Your task to perform on an android device: uninstall "Flipkart Online Shopping App" Image 0: 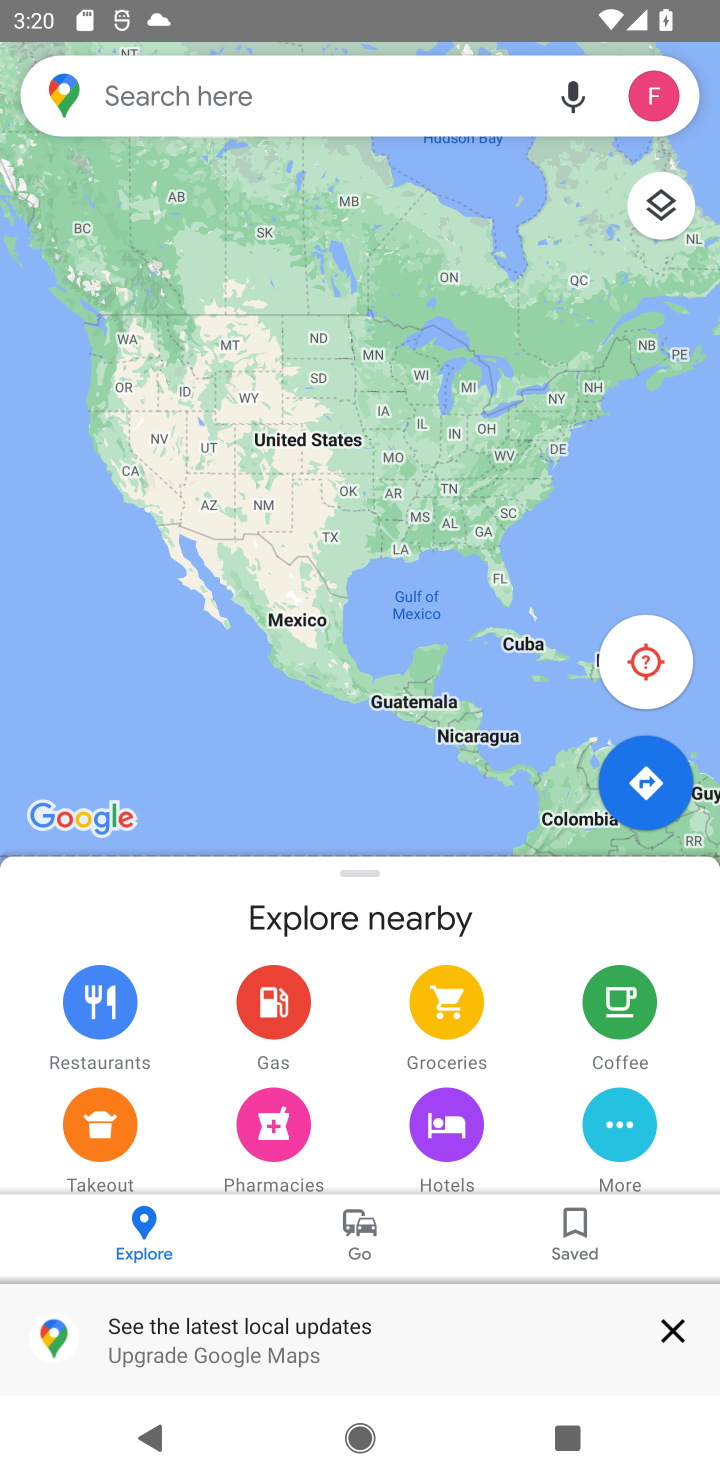
Step 0: press home button
Your task to perform on an android device: uninstall "Flipkart Online Shopping App" Image 1: 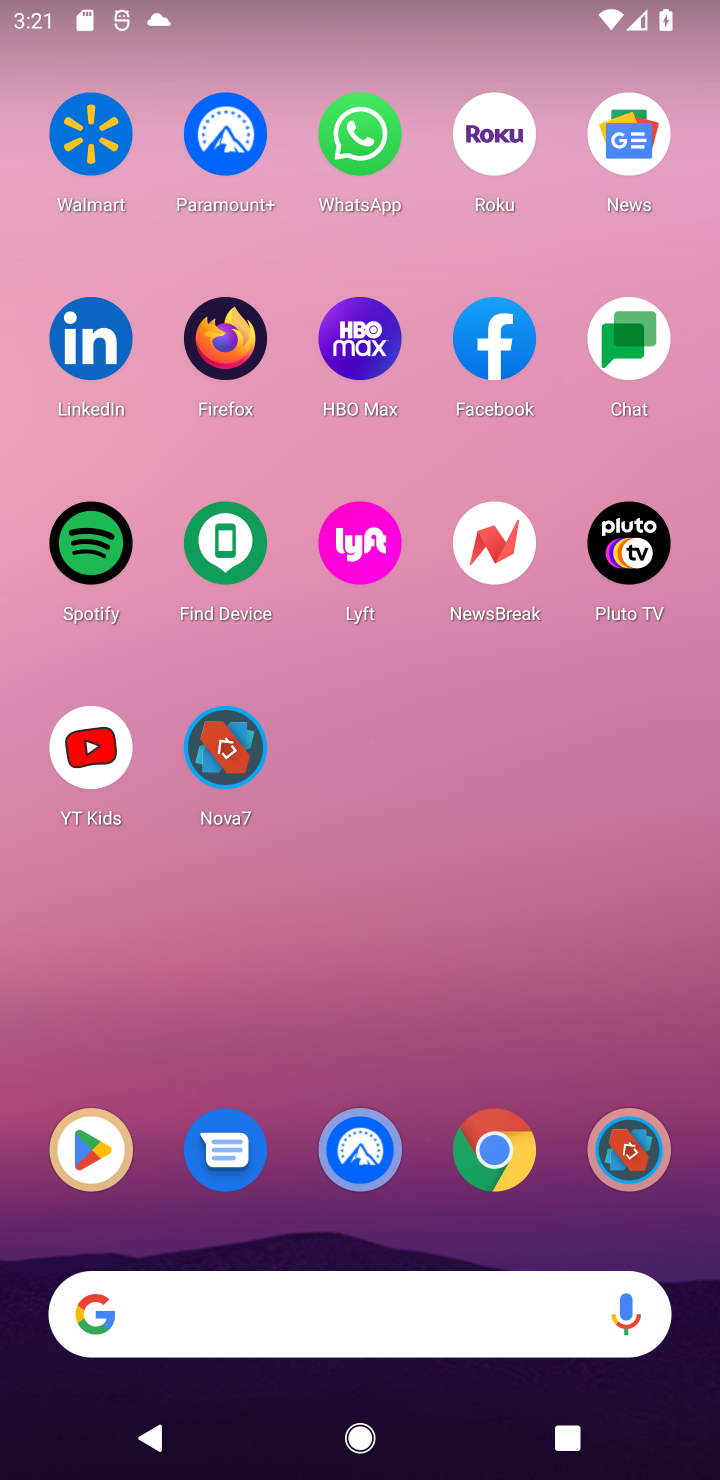
Step 1: task complete